Your task to perform on an android device: open the mobile data screen to see how much data has been used Image 0: 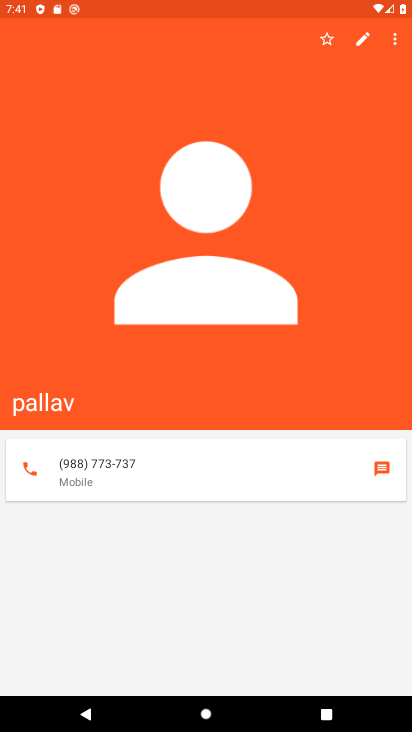
Step 0: press home button
Your task to perform on an android device: open the mobile data screen to see how much data has been used Image 1: 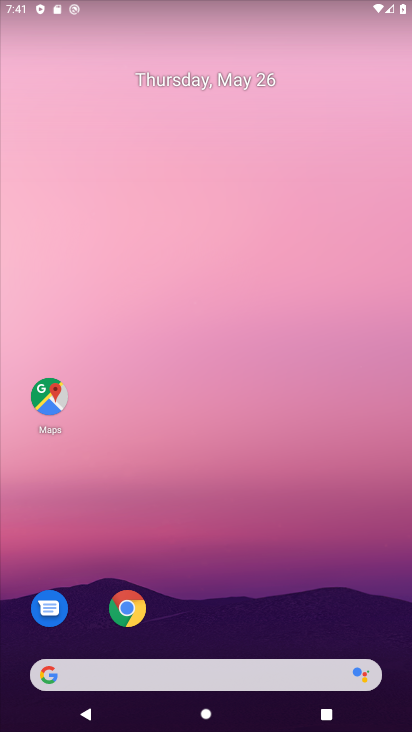
Step 1: drag from (234, 624) to (257, 5)
Your task to perform on an android device: open the mobile data screen to see how much data has been used Image 2: 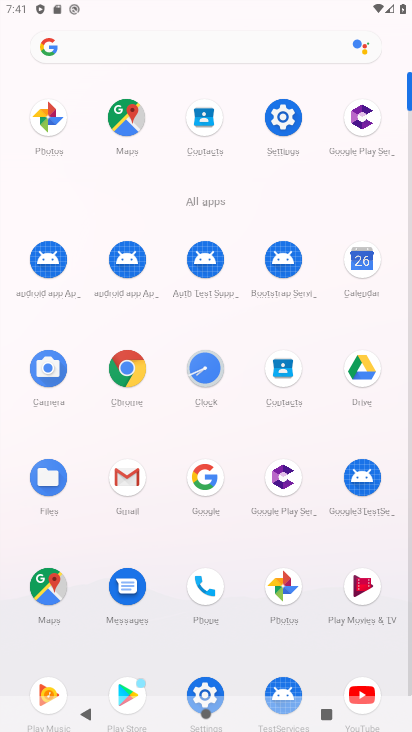
Step 2: click (291, 114)
Your task to perform on an android device: open the mobile data screen to see how much data has been used Image 3: 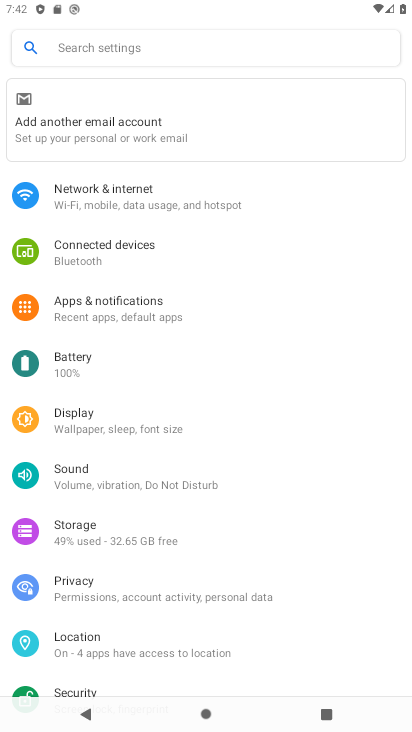
Step 3: click (109, 201)
Your task to perform on an android device: open the mobile data screen to see how much data has been used Image 4: 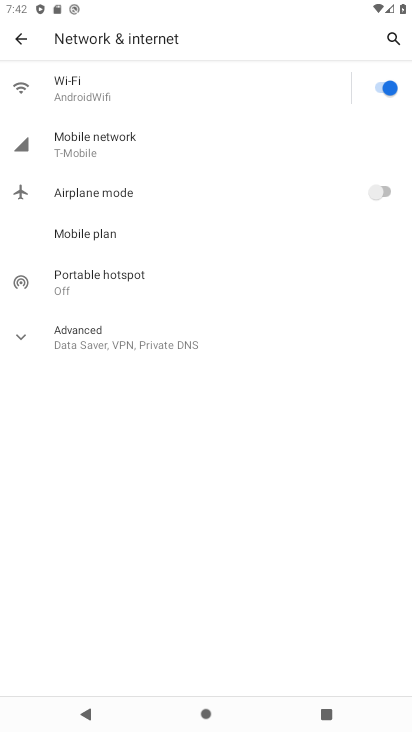
Step 4: click (85, 140)
Your task to perform on an android device: open the mobile data screen to see how much data has been used Image 5: 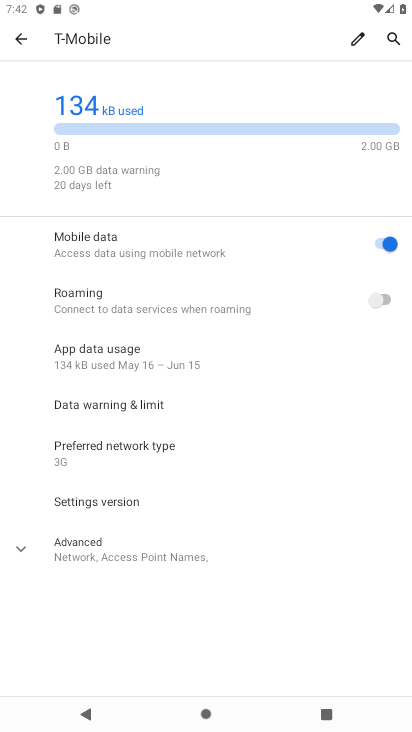
Step 5: click (77, 362)
Your task to perform on an android device: open the mobile data screen to see how much data has been used Image 6: 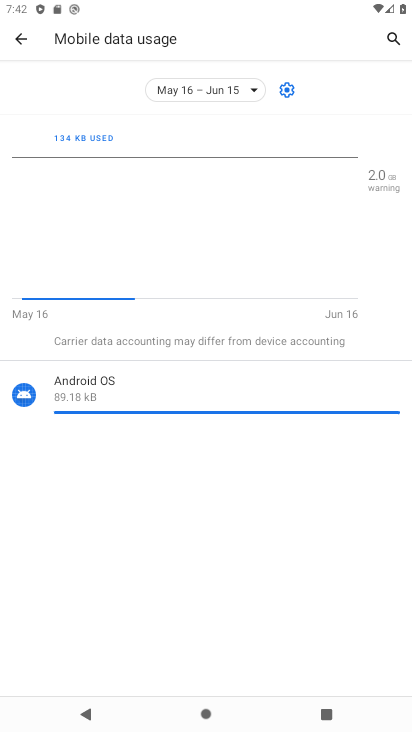
Step 6: task complete